Your task to perform on an android device: Go to network settings Image 0: 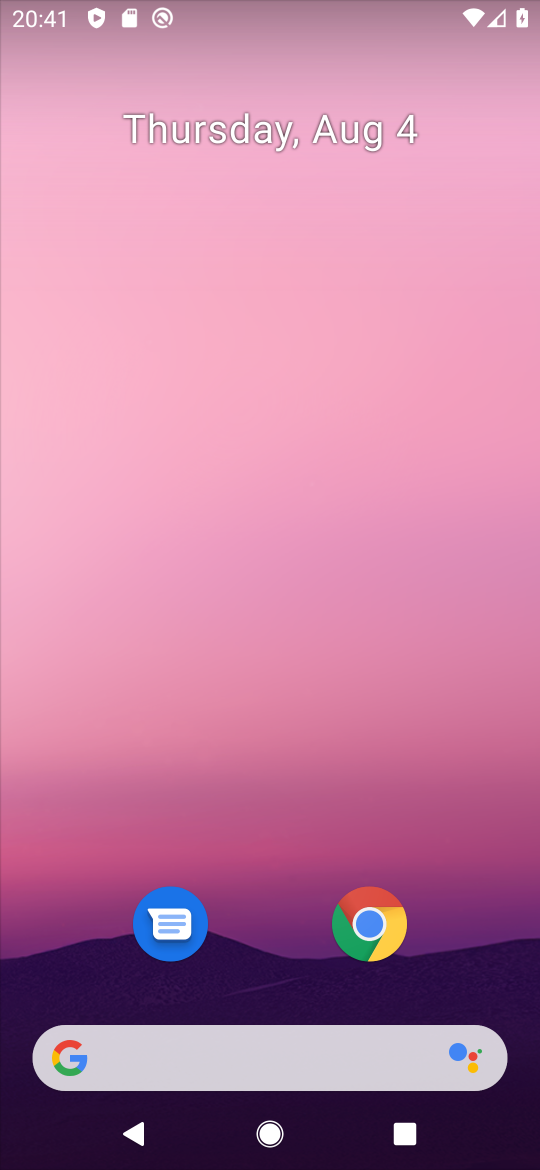
Step 0: drag from (274, 885) to (467, 29)
Your task to perform on an android device: Go to network settings Image 1: 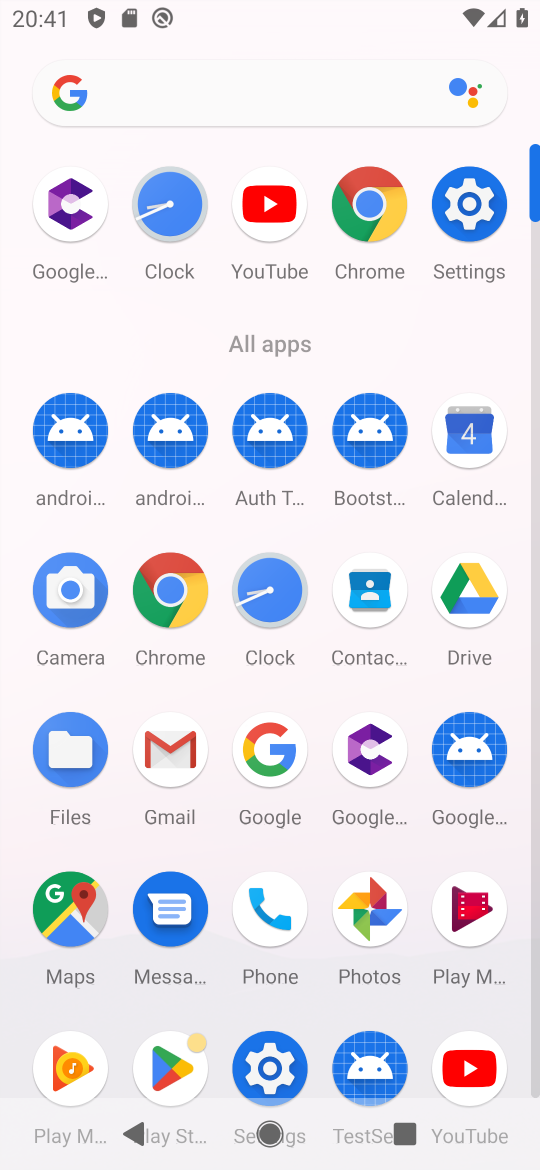
Step 1: click (481, 200)
Your task to perform on an android device: Go to network settings Image 2: 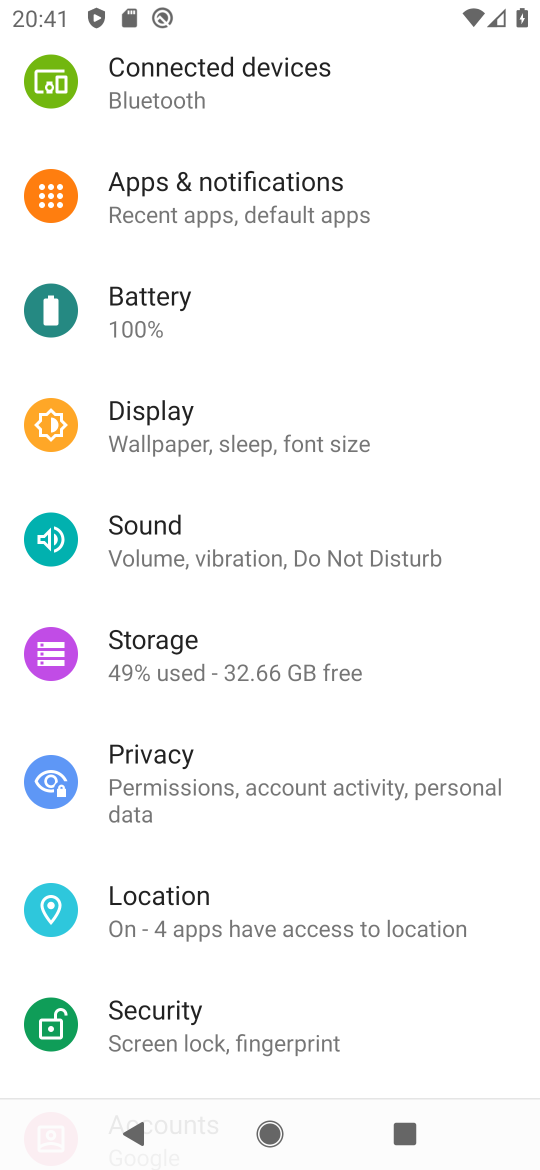
Step 2: drag from (268, 219) to (194, 773)
Your task to perform on an android device: Go to network settings Image 3: 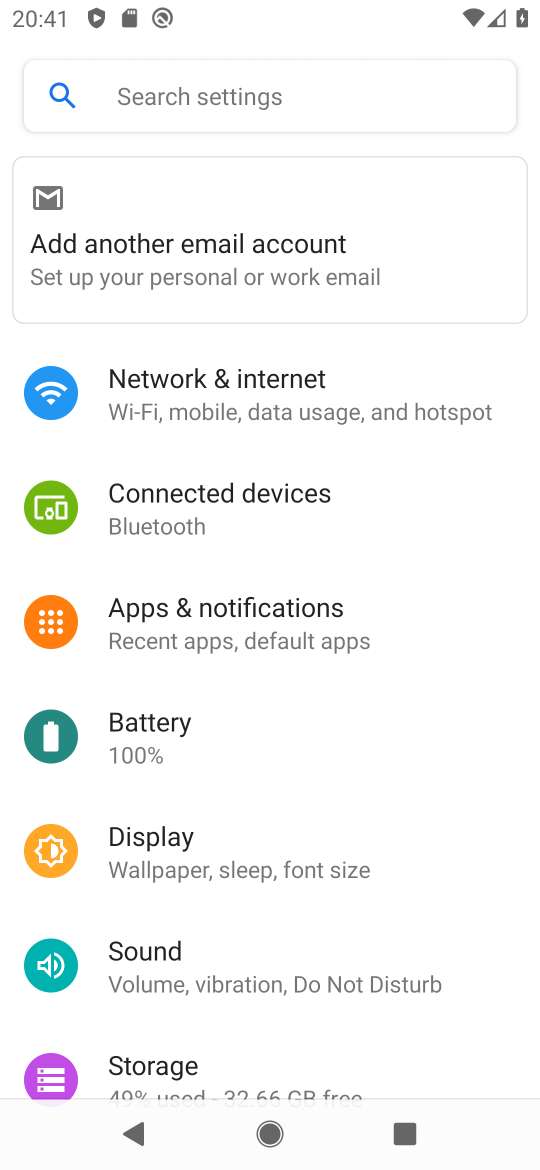
Step 3: click (139, 391)
Your task to perform on an android device: Go to network settings Image 4: 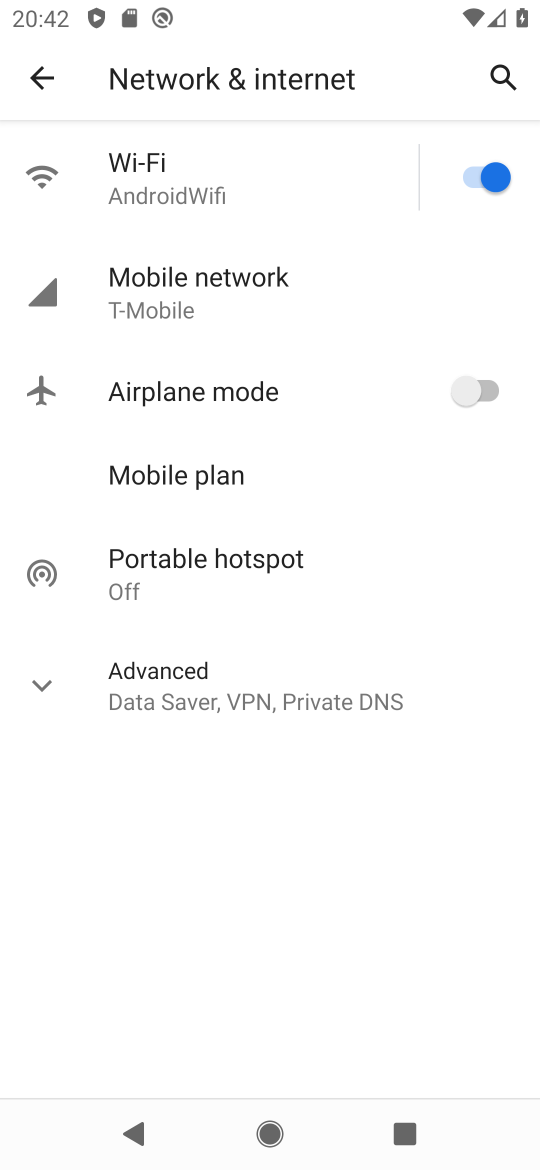
Step 4: click (255, 272)
Your task to perform on an android device: Go to network settings Image 5: 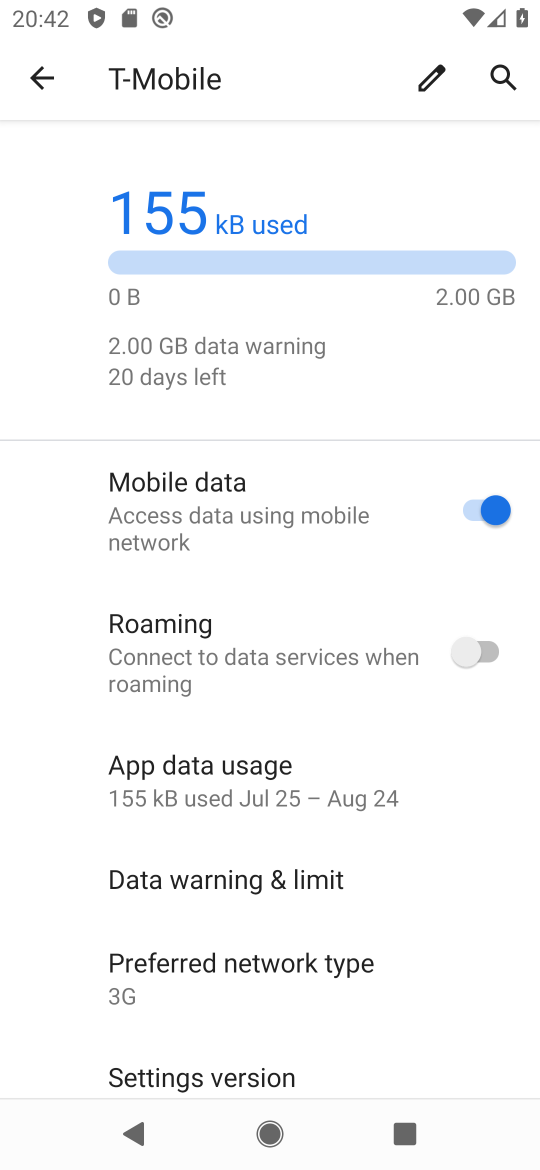
Step 5: task complete